Your task to perform on an android device: change the upload size in google photos Image 0: 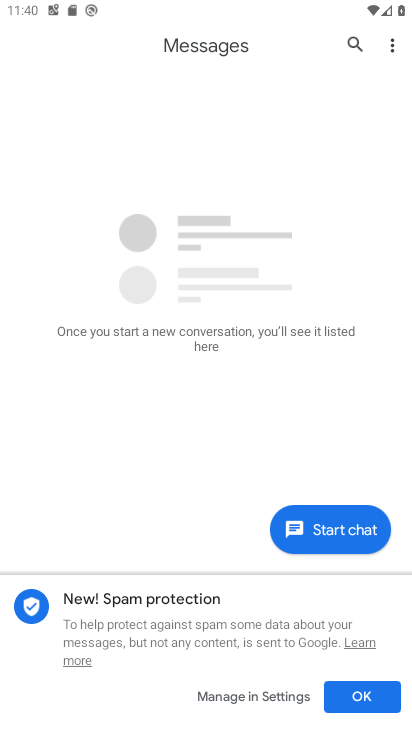
Step 0: press home button
Your task to perform on an android device: change the upload size in google photos Image 1: 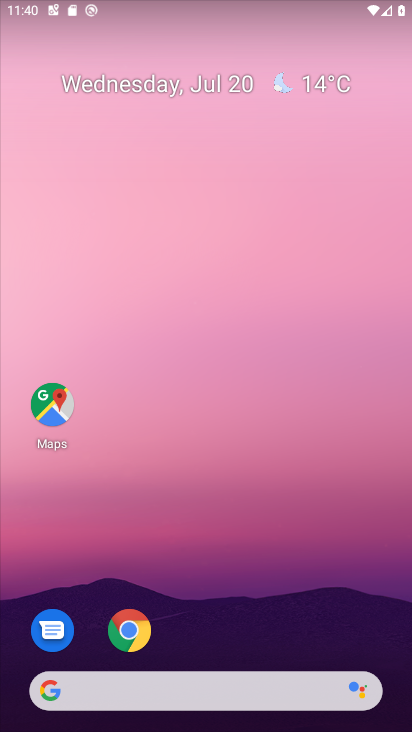
Step 1: drag from (189, 642) to (242, 80)
Your task to perform on an android device: change the upload size in google photos Image 2: 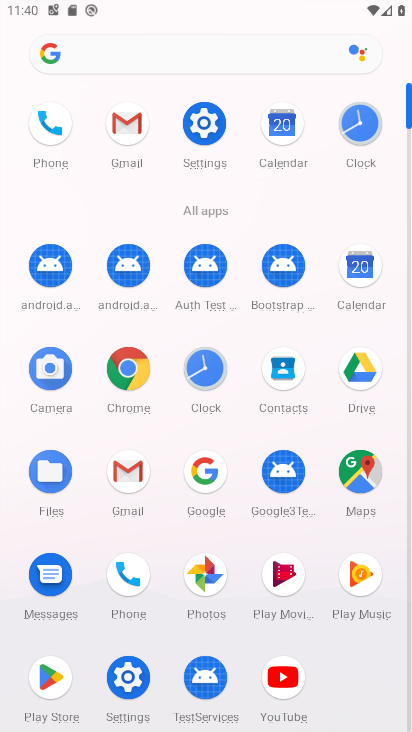
Step 2: click (200, 563)
Your task to perform on an android device: change the upload size in google photos Image 3: 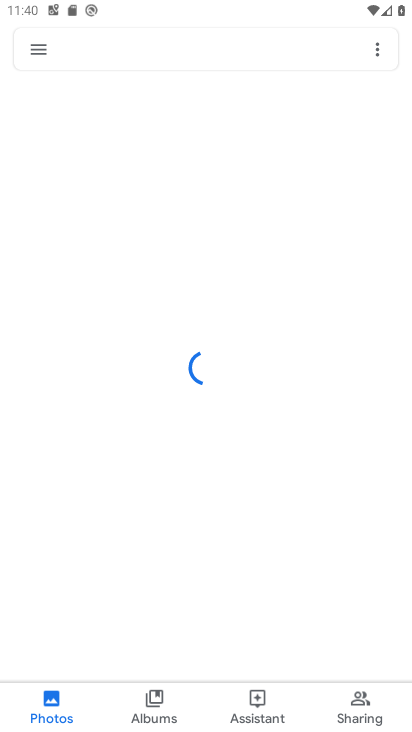
Step 3: click (33, 46)
Your task to perform on an android device: change the upload size in google photos Image 4: 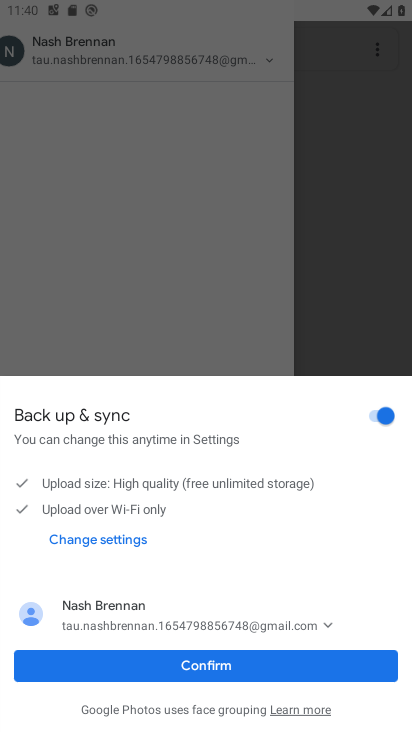
Step 4: click (200, 675)
Your task to perform on an android device: change the upload size in google photos Image 5: 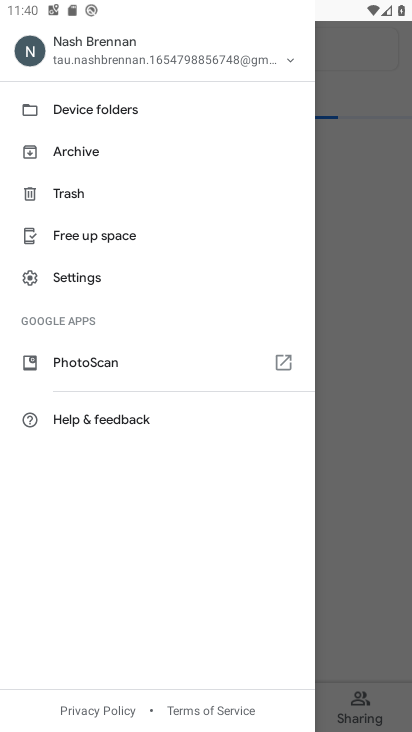
Step 5: click (62, 281)
Your task to perform on an android device: change the upload size in google photos Image 6: 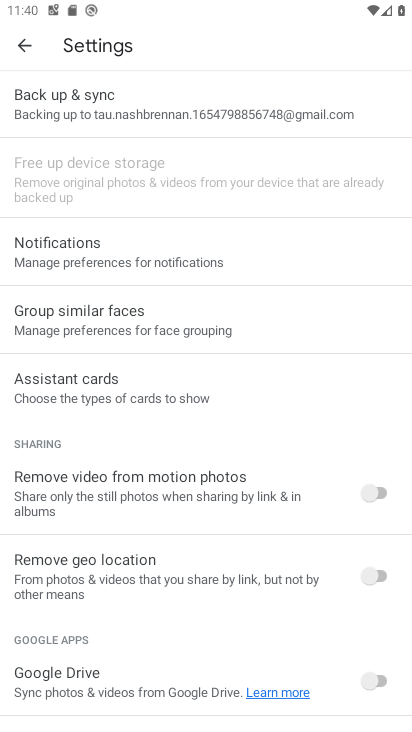
Step 6: click (236, 107)
Your task to perform on an android device: change the upload size in google photos Image 7: 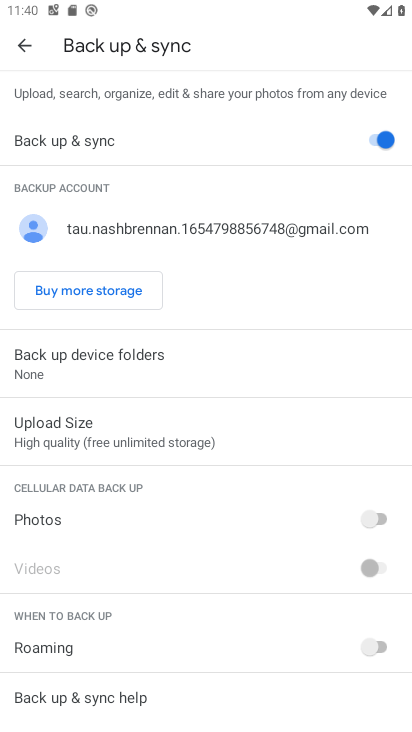
Step 7: click (128, 437)
Your task to perform on an android device: change the upload size in google photos Image 8: 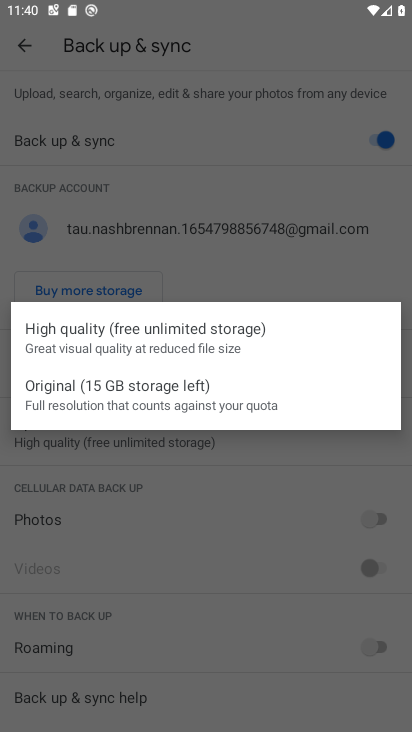
Step 8: click (115, 385)
Your task to perform on an android device: change the upload size in google photos Image 9: 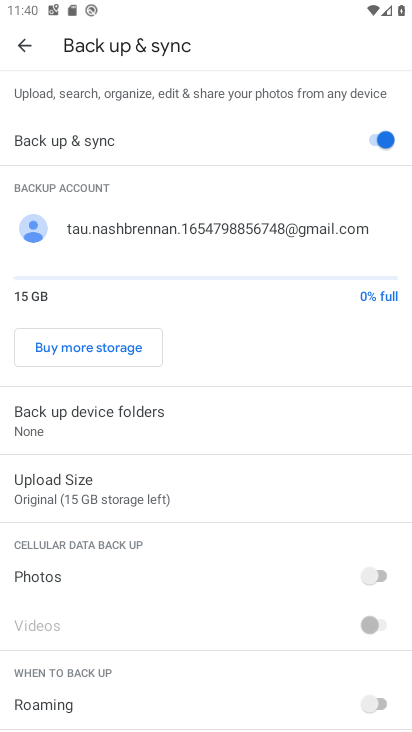
Step 9: task complete